Your task to perform on an android device: toggle location history Image 0: 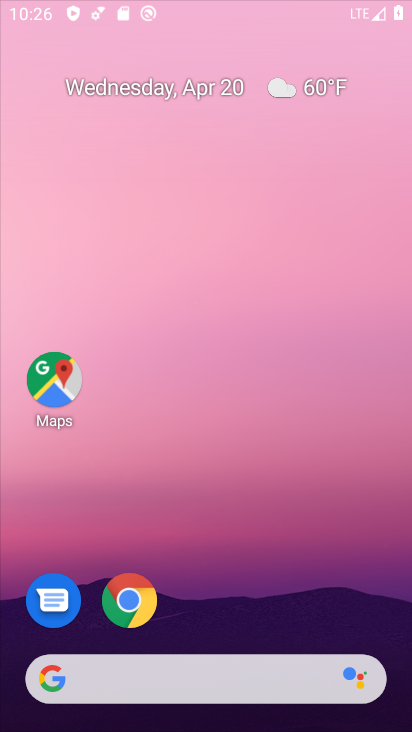
Step 0: click (296, 35)
Your task to perform on an android device: toggle location history Image 1: 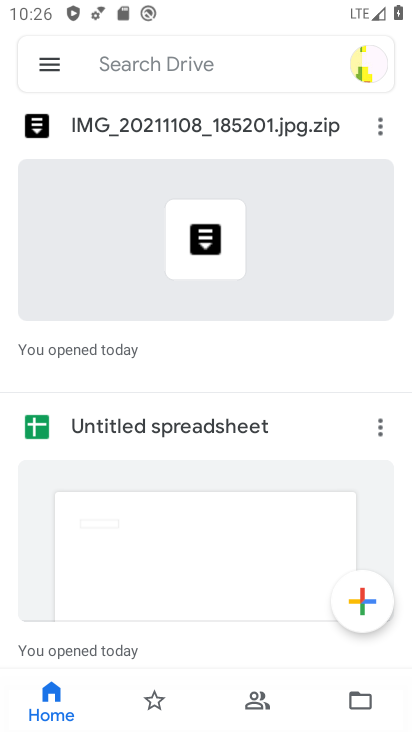
Step 1: press home button
Your task to perform on an android device: toggle location history Image 2: 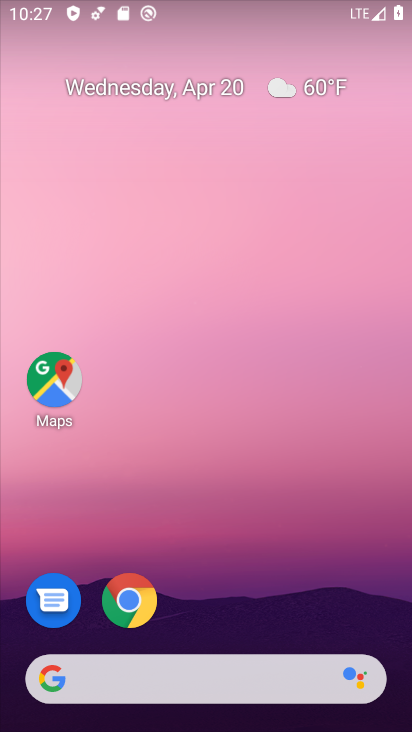
Step 2: drag from (181, 540) to (263, 93)
Your task to perform on an android device: toggle location history Image 3: 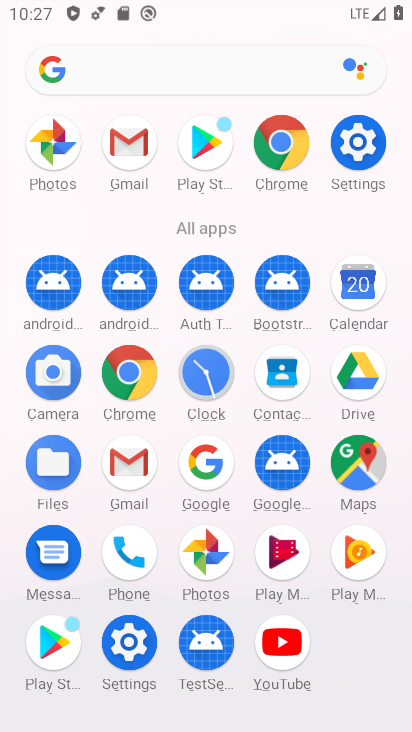
Step 3: click (135, 628)
Your task to perform on an android device: toggle location history Image 4: 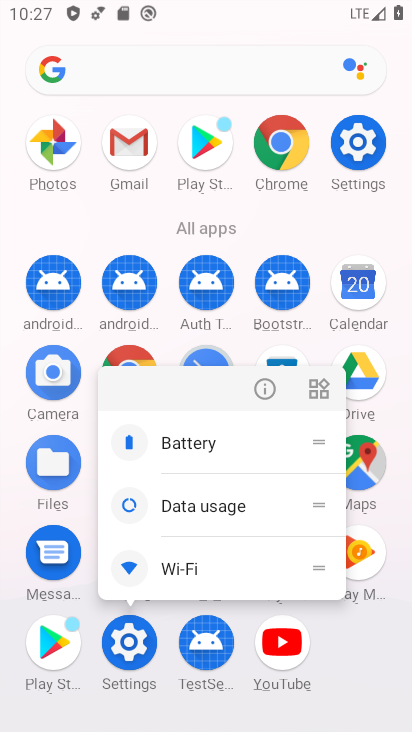
Step 4: click (137, 632)
Your task to perform on an android device: toggle location history Image 5: 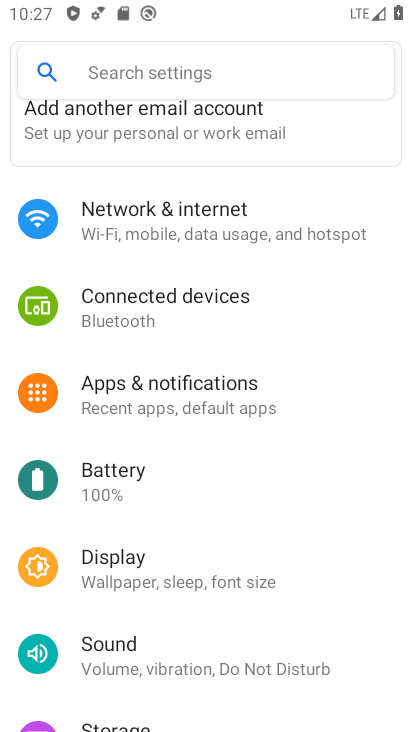
Step 5: drag from (180, 563) to (295, 152)
Your task to perform on an android device: toggle location history Image 6: 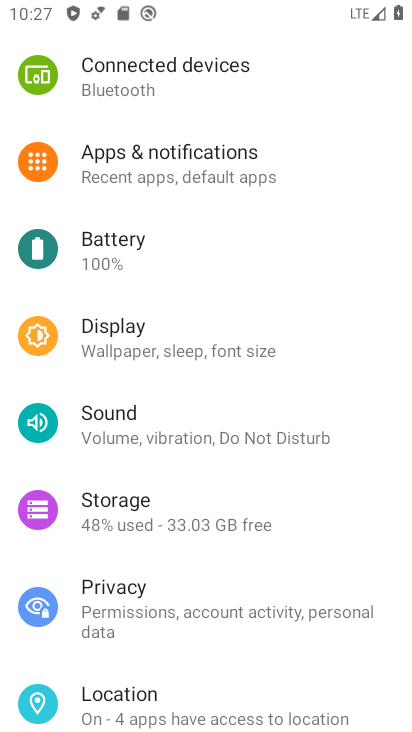
Step 6: drag from (239, 599) to (298, 189)
Your task to perform on an android device: toggle location history Image 7: 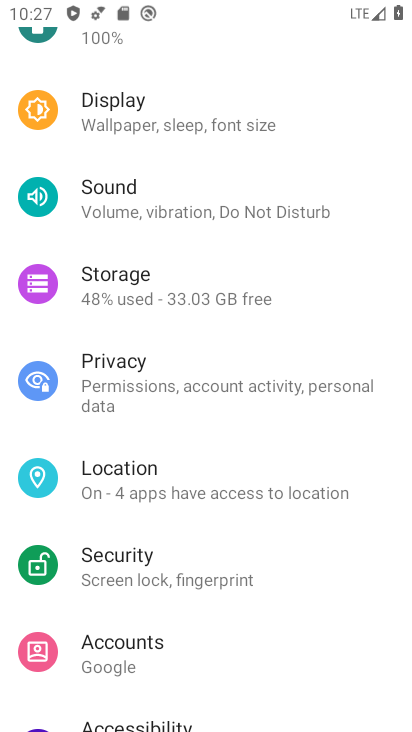
Step 7: click (137, 477)
Your task to perform on an android device: toggle location history Image 8: 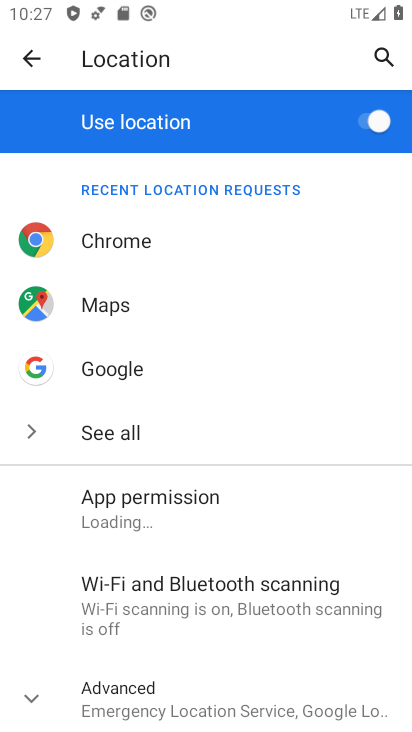
Step 8: drag from (280, 679) to (336, 260)
Your task to perform on an android device: toggle location history Image 9: 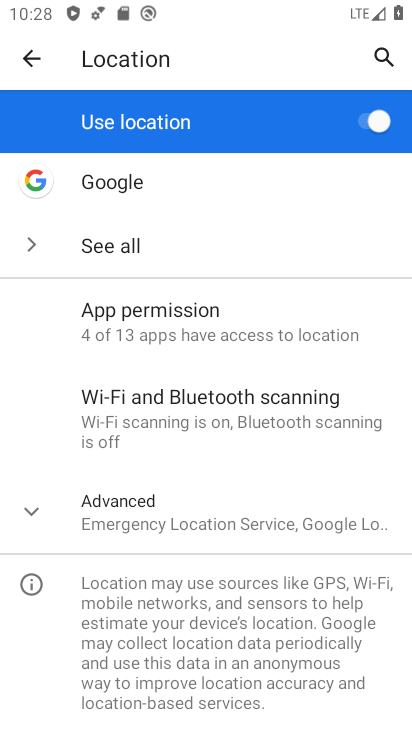
Step 9: click (126, 527)
Your task to perform on an android device: toggle location history Image 10: 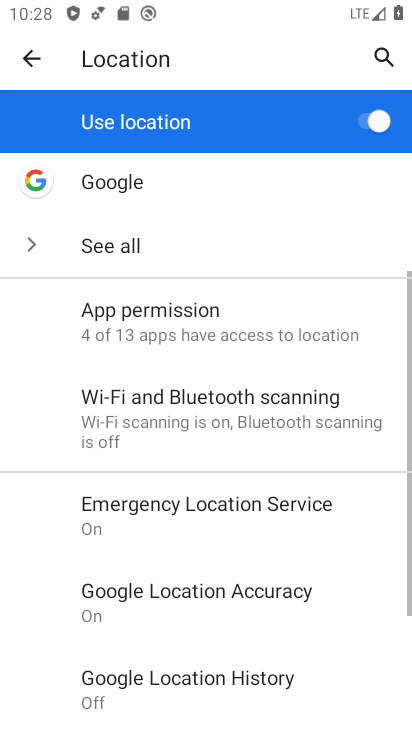
Step 10: drag from (369, 644) to (401, 201)
Your task to perform on an android device: toggle location history Image 11: 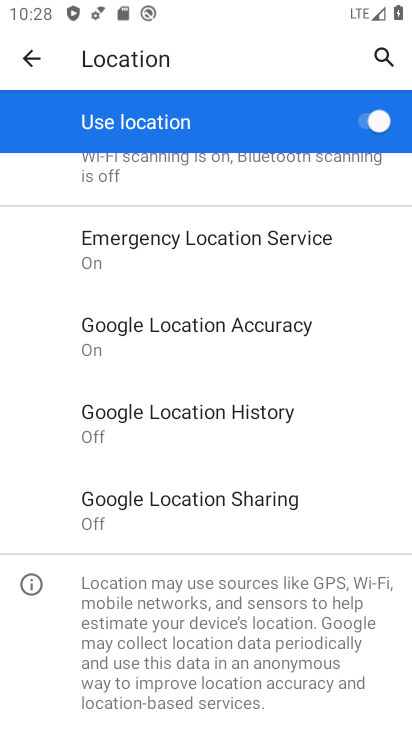
Step 11: click (242, 413)
Your task to perform on an android device: toggle location history Image 12: 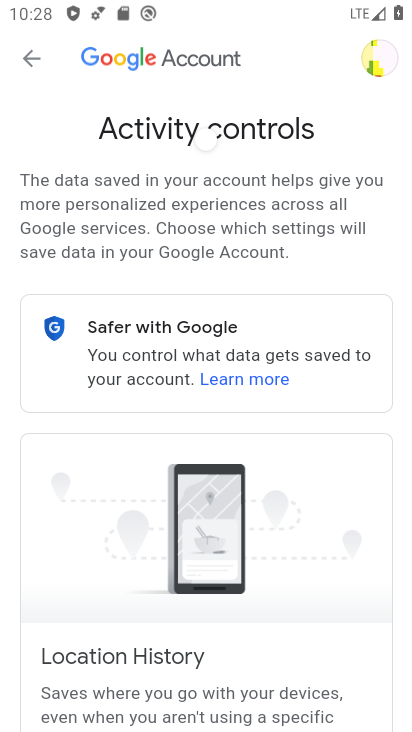
Step 12: drag from (322, 604) to (327, 173)
Your task to perform on an android device: toggle location history Image 13: 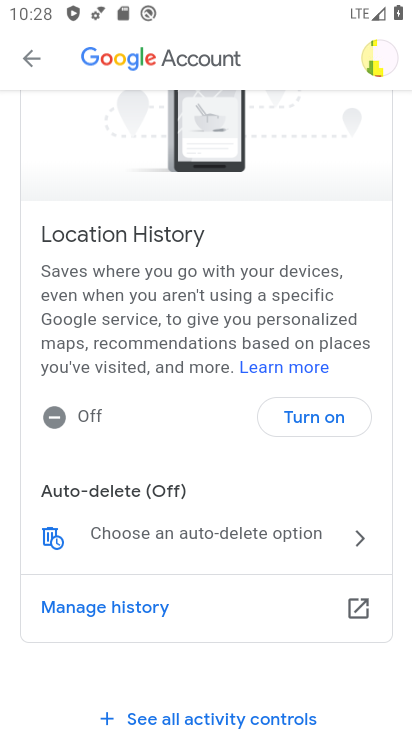
Step 13: click (300, 430)
Your task to perform on an android device: toggle location history Image 14: 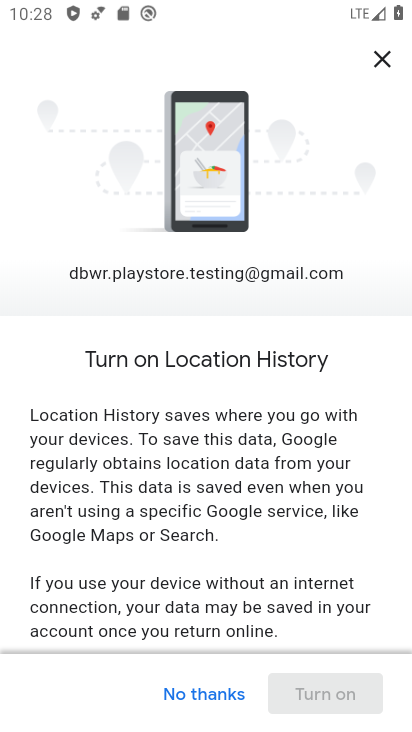
Step 14: drag from (314, 513) to (333, 49)
Your task to perform on an android device: toggle location history Image 15: 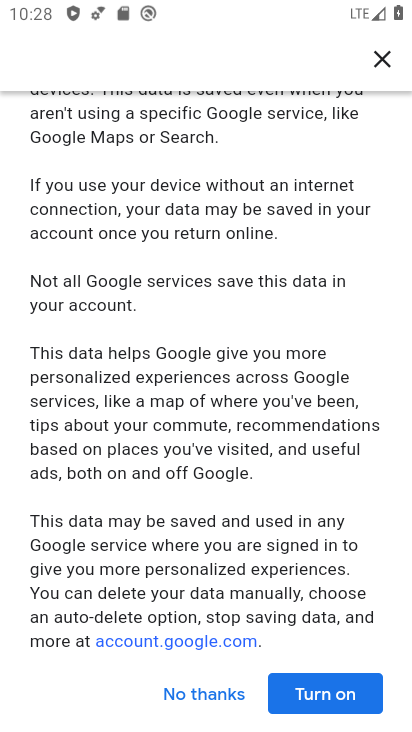
Step 15: drag from (237, 504) to (289, 189)
Your task to perform on an android device: toggle location history Image 16: 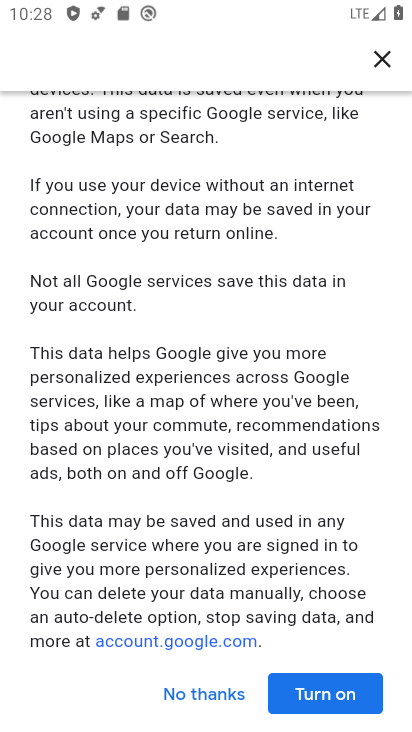
Step 16: click (320, 704)
Your task to perform on an android device: toggle location history Image 17: 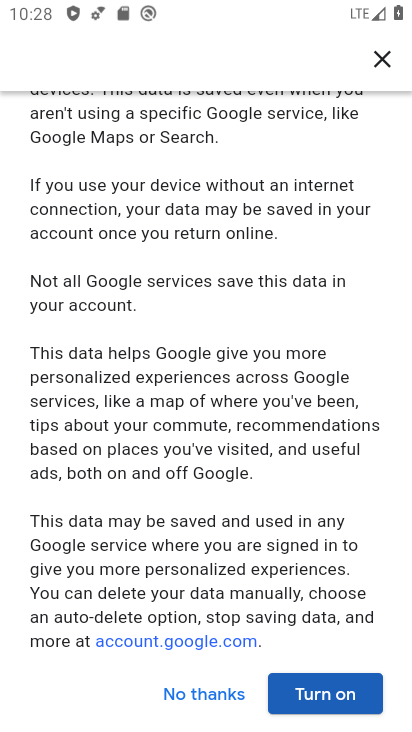
Step 17: click (322, 692)
Your task to perform on an android device: toggle location history Image 18: 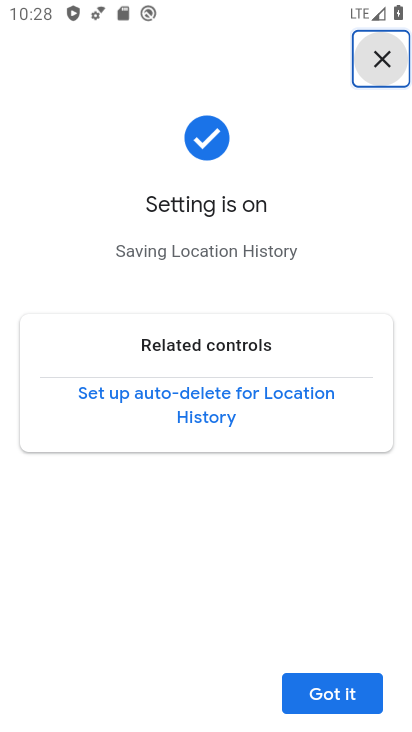
Step 18: task complete